Your task to perform on an android device: all mails in gmail Image 0: 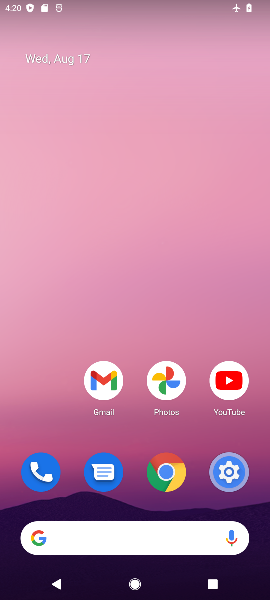
Step 0: click (96, 384)
Your task to perform on an android device: all mails in gmail Image 1: 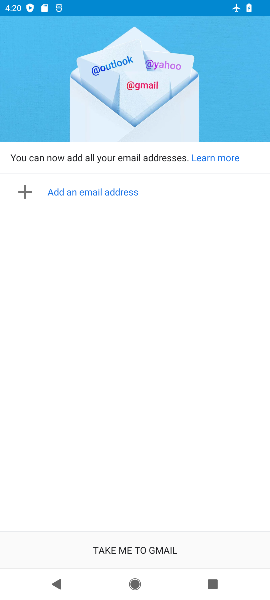
Step 1: task complete